Your task to perform on an android device: Is it going to rain today? Image 0: 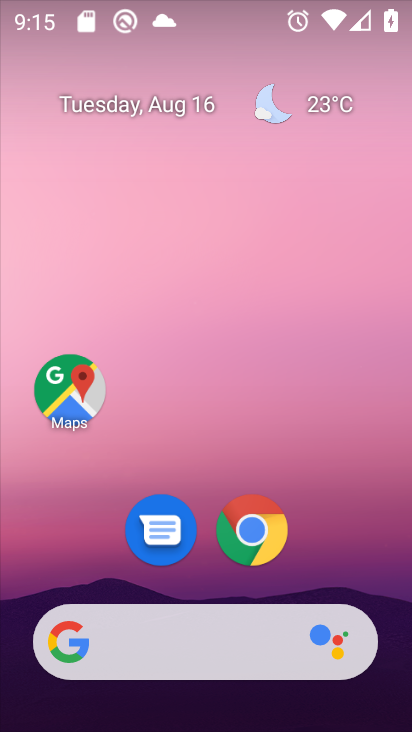
Step 0: drag from (342, 538) to (330, 71)
Your task to perform on an android device: Is it going to rain today? Image 1: 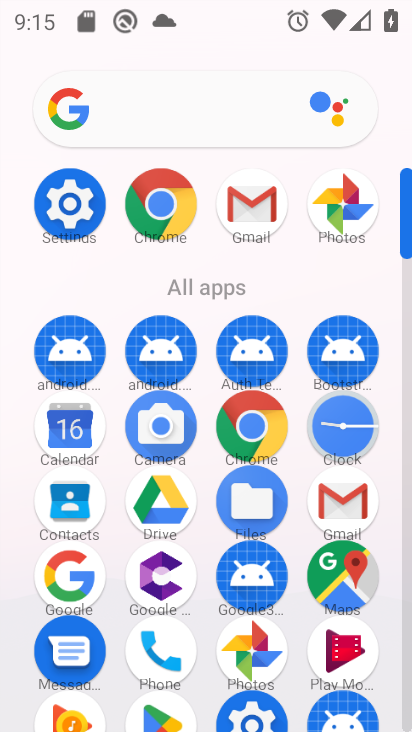
Step 1: click (257, 435)
Your task to perform on an android device: Is it going to rain today? Image 2: 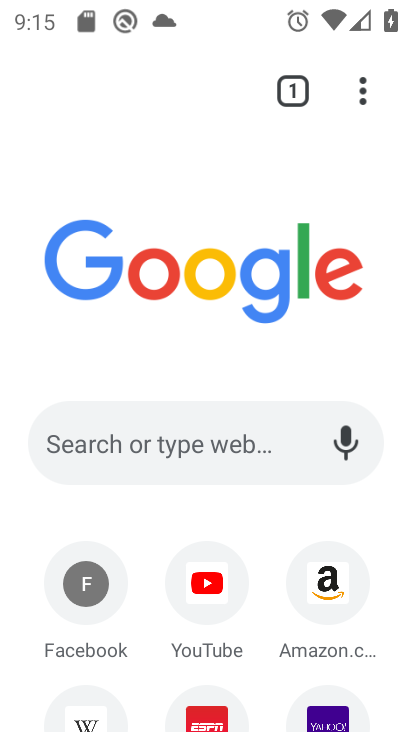
Step 2: click (233, 449)
Your task to perform on an android device: Is it going to rain today? Image 3: 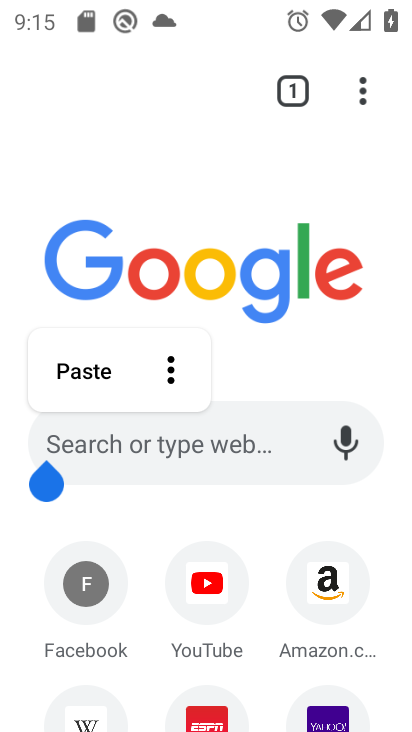
Step 3: click (233, 447)
Your task to perform on an android device: Is it going to rain today? Image 4: 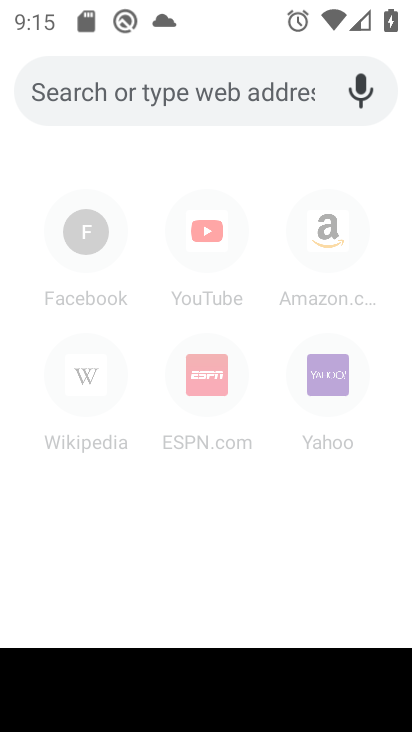
Step 4: type "weather"
Your task to perform on an android device: Is it going to rain today? Image 5: 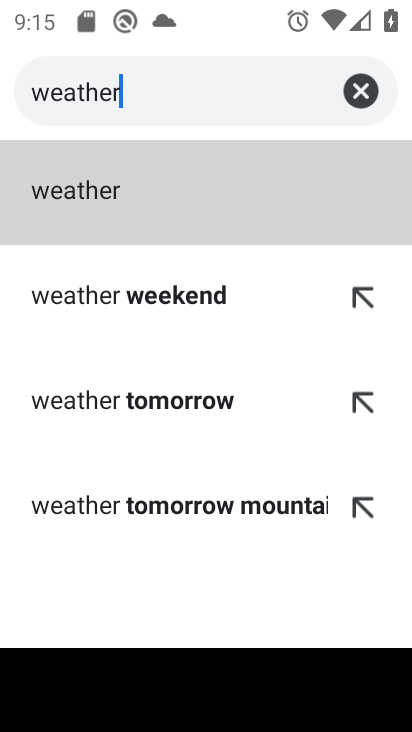
Step 5: click (91, 197)
Your task to perform on an android device: Is it going to rain today? Image 6: 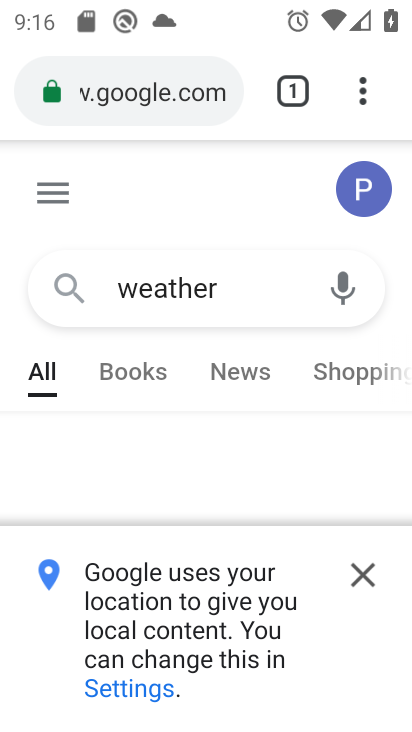
Step 6: task complete